Your task to perform on an android device: Open settings on Google Maps Image 0: 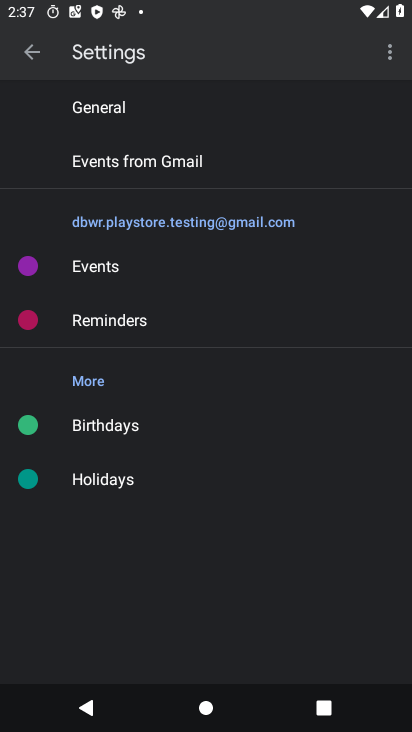
Step 0: press home button
Your task to perform on an android device: Open settings on Google Maps Image 1: 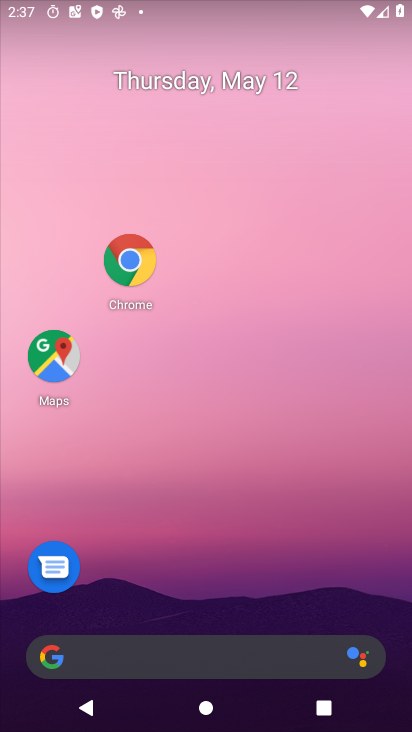
Step 1: drag from (131, 625) to (131, 325)
Your task to perform on an android device: Open settings on Google Maps Image 2: 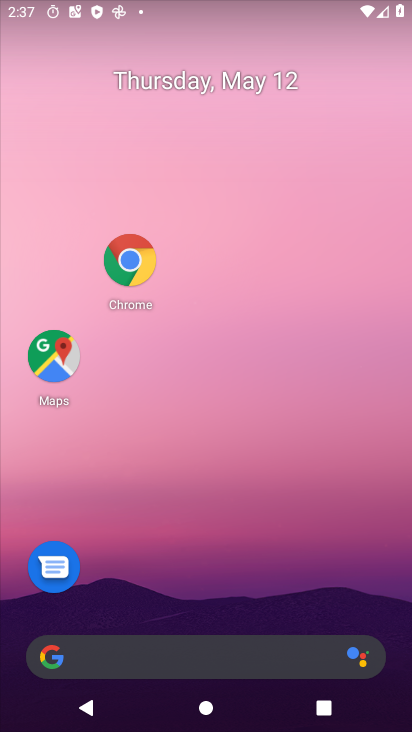
Step 2: drag from (227, 637) to (244, 182)
Your task to perform on an android device: Open settings on Google Maps Image 3: 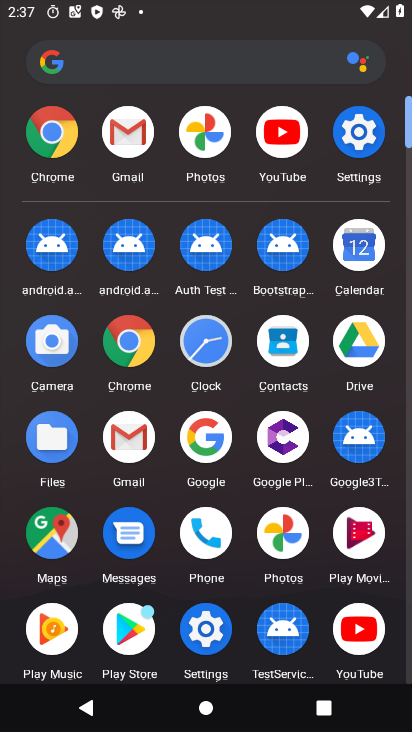
Step 3: click (57, 529)
Your task to perform on an android device: Open settings on Google Maps Image 4: 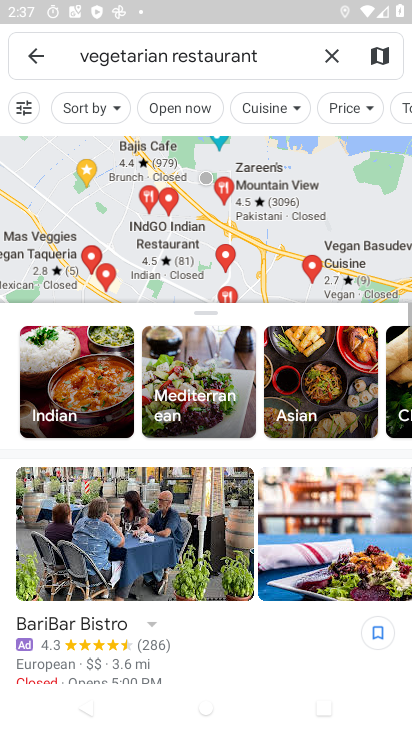
Step 4: click (328, 63)
Your task to perform on an android device: Open settings on Google Maps Image 5: 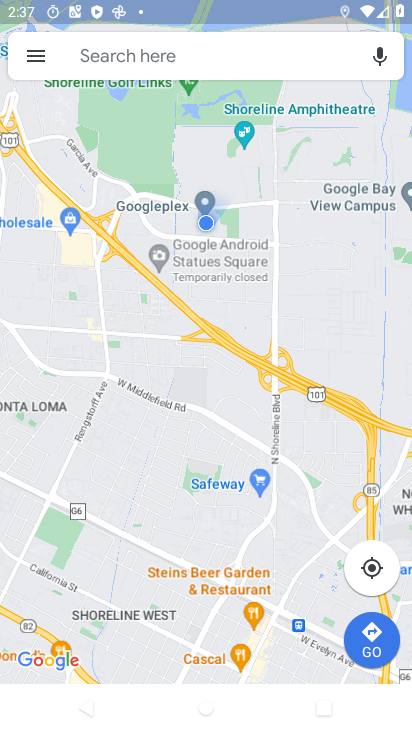
Step 5: click (143, 50)
Your task to perform on an android device: Open settings on Google Maps Image 6: 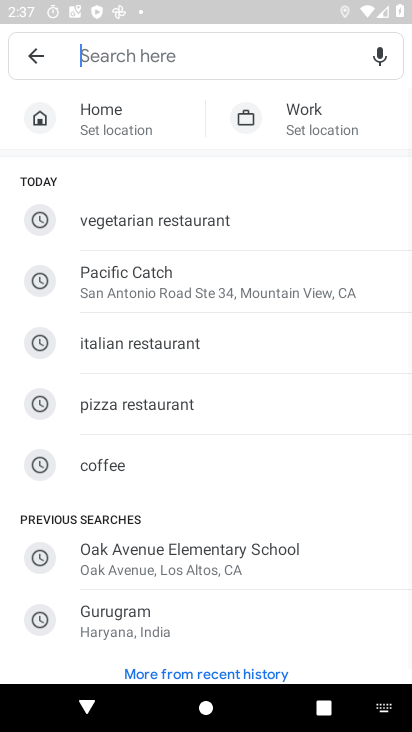
Step 6: click (34, 56)
Your task to perform on an android device: Open settings on Google Maps Image 7: 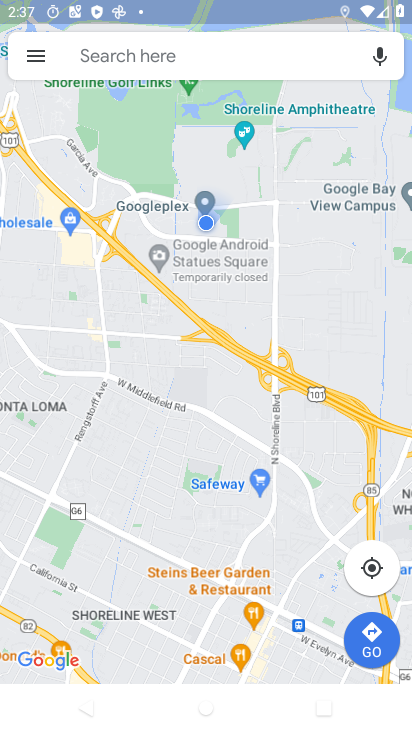
Step 7: click (32, 57)
Your task to perform on an android device: Open settings on Google Maps Image 8: 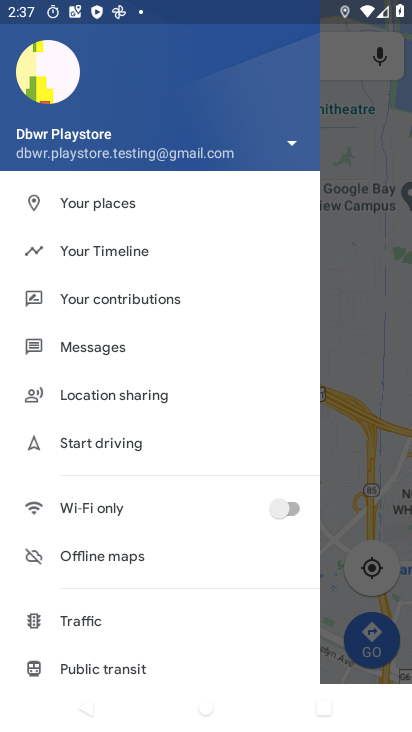
Step 8: drag from (113, 653) to (113, 254)
Your task to perform on an android device: Open settings on Google Maps Image 9: 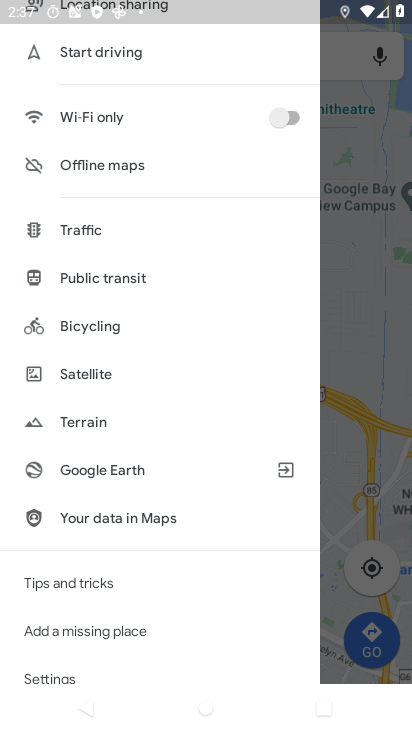
Step 9: click (62, 682)
Your task to perform on an android device: Open settings on Google Maps Image 10: 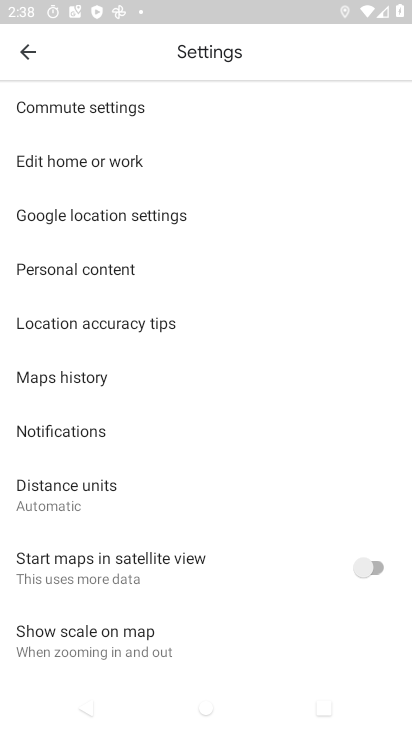
Step 10: task complete